Your task to perform on an android device: Turn on the flashlight Image 0: 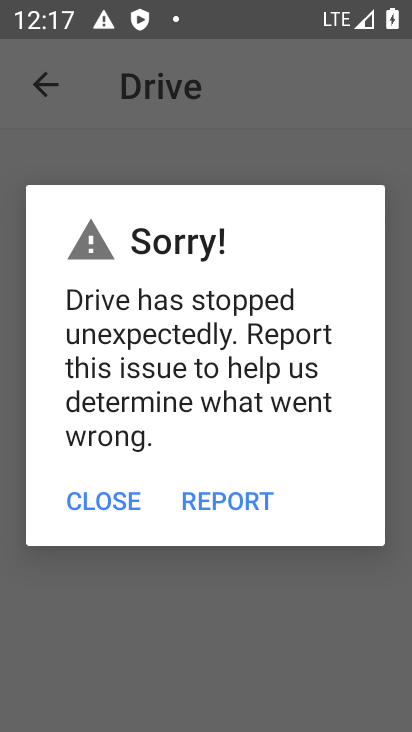
Step 0: press home button
Your task to perform on an android device: Turn on the flashlight Image 1: 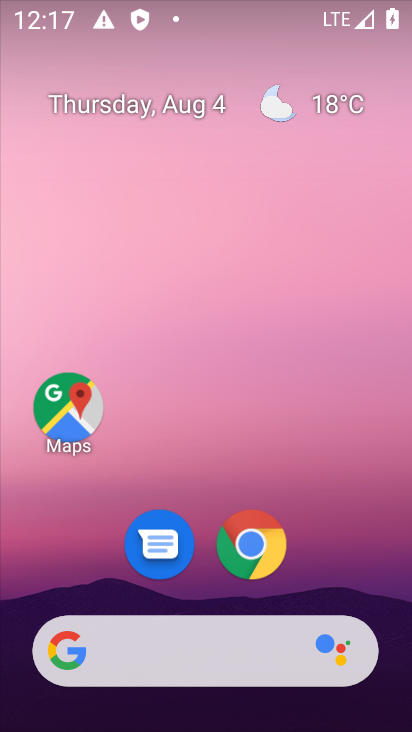
Step 1: drag from (386, 652) to (337, 106)
Your task to perform on an android device: Turn on the flashlight Image 2: 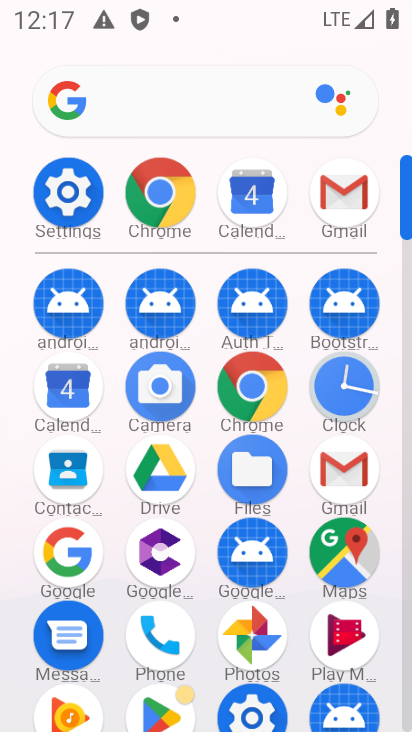
Step 2: click (60, 196)
Your task to perform on an android device: Turn on the flashlight Image 3: 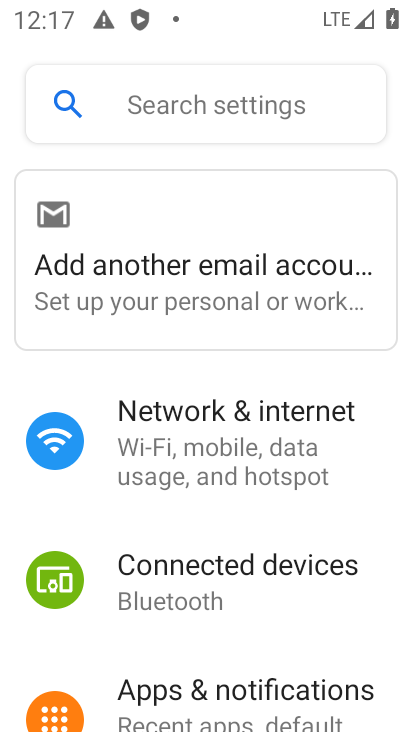
Step 3: drag from (359, 640) to (330, 357)
Your task to perform on an android device: Turn on the flashlight Image 4: 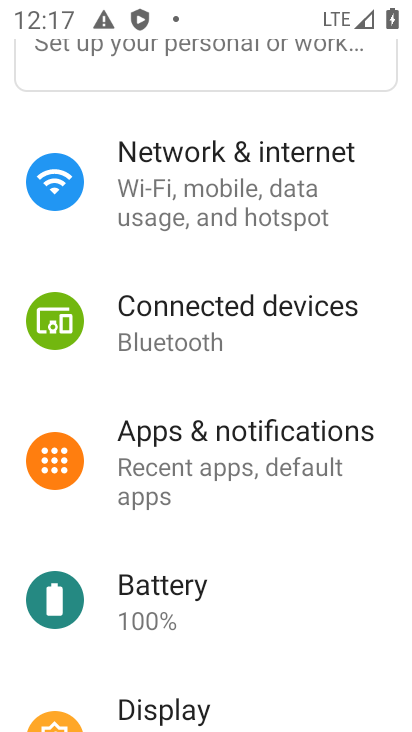
Step 4: click (148, 702)
Your task to perform on an android device: Turn on the flashlight Image 5: 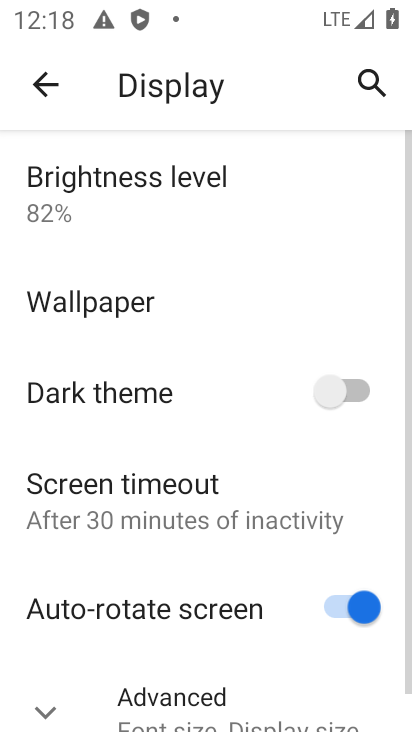
Step 5: task complete